Your task to perform on an android device: Open network settings Image 0: 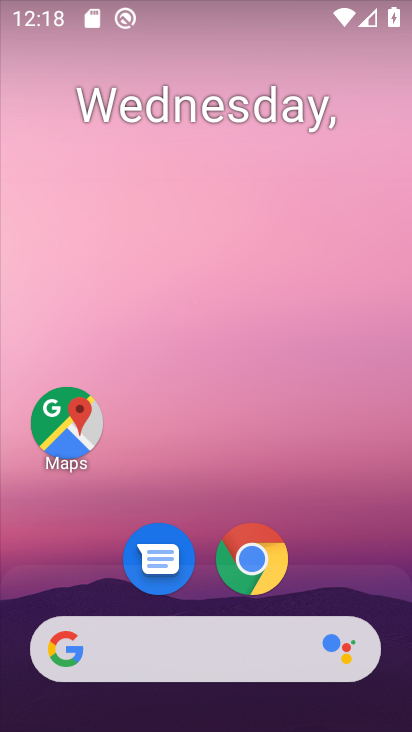
Step 0: drag from (190, 562) to (178, 155)
Your task to perform on an android device: Open network settings Image 1: 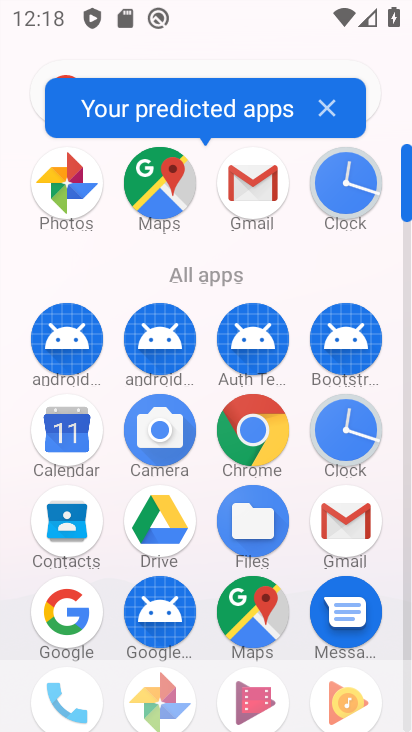
Step 1: drag from (208, 557) to (263, 123)
Your task to perform on an android device: Open network settings Image 2: 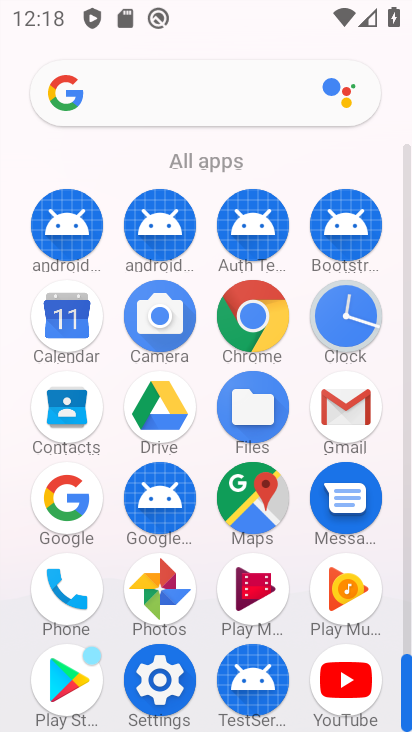
Step 2: click (156, 693)
Your task to perform on an android device: Open network settings Image 3: 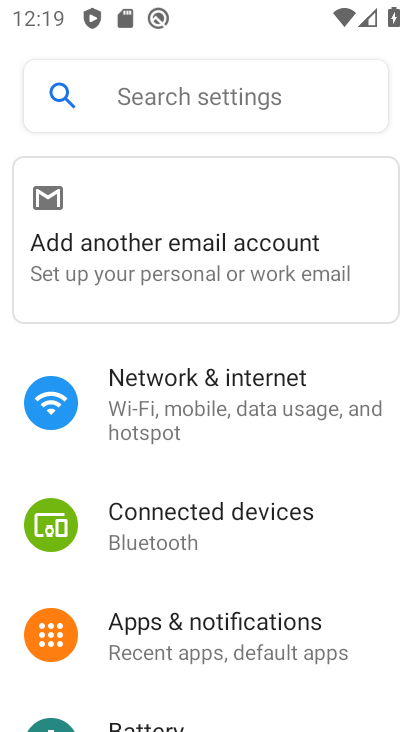
Step 3: click (242, 429)
Your task to perform on an android device: Open network settings Image 4: 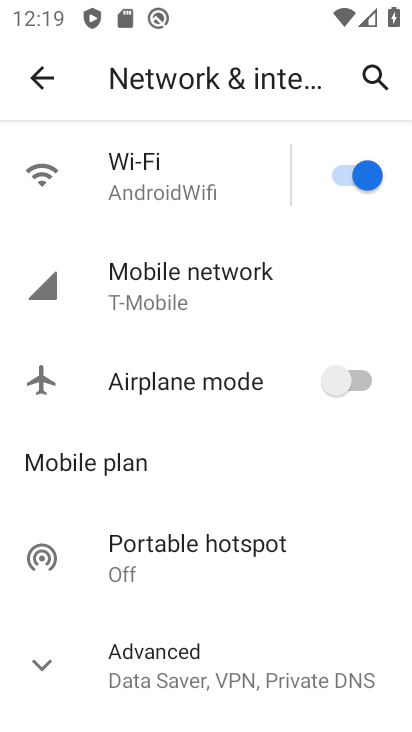
Step 4: task complete